Your task to perform on an android device: open app "Google Chat" Image 0: 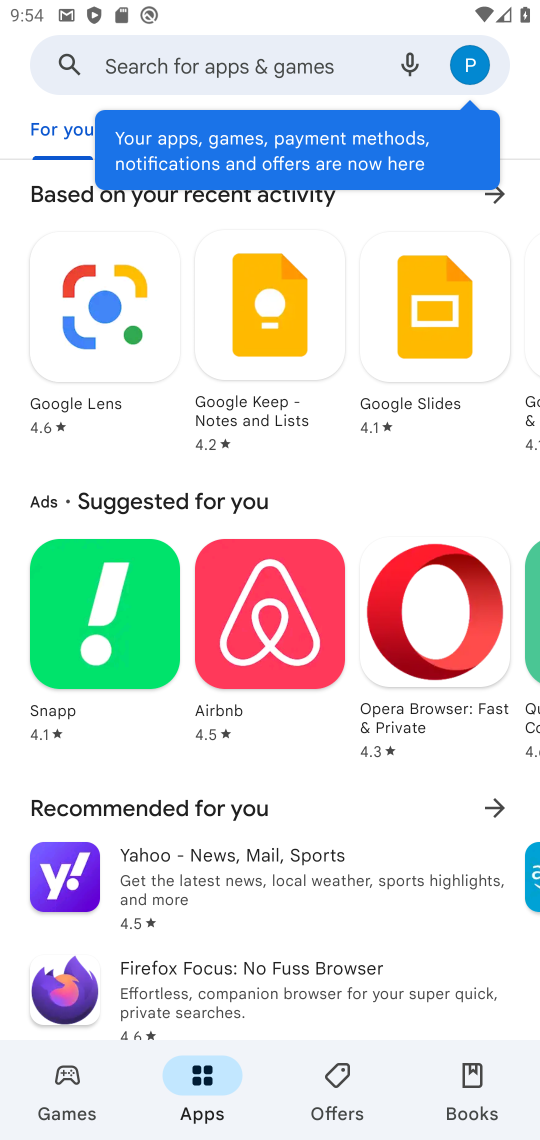
Step 0: click (317, 69)
Your task to perform on an android device: open app "Google Chat" Image 1: 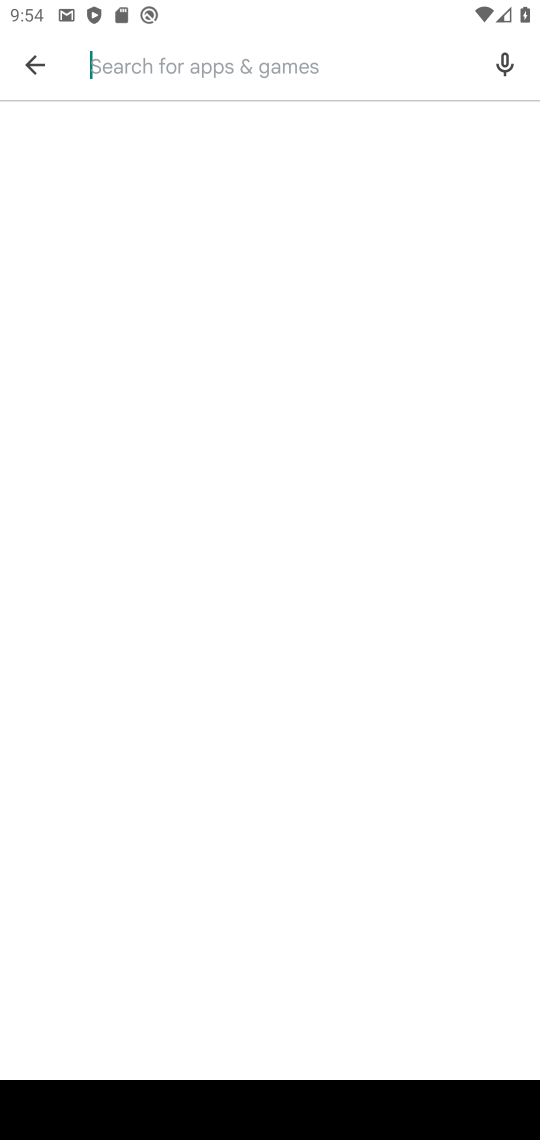
Step 1: type "google chat"
Your task to perform on an android device: open app "Google Chat" Image 2: 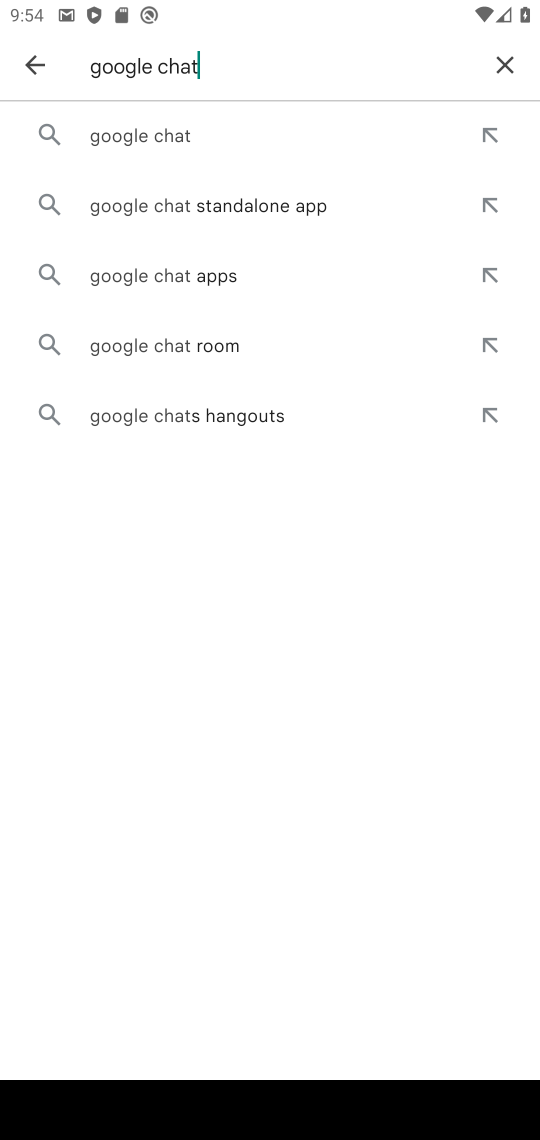
Step 2: click (114, 117)
Your task to perform on an android device: open app "Google Chat" Image 3: 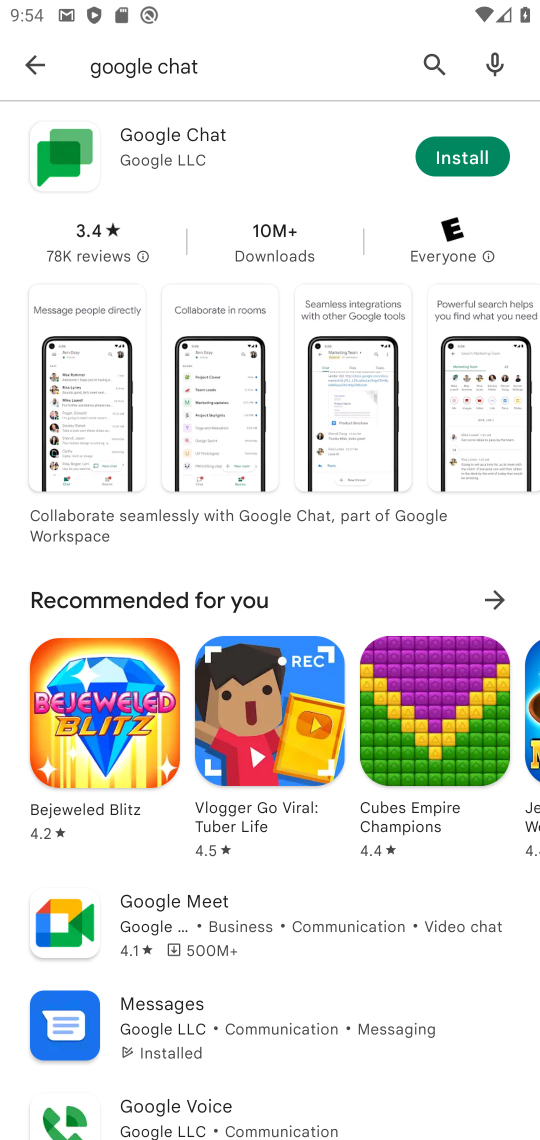
Step 3: task complete